Your task to perform on an android device: turn off notifications settings in the gmail app Image 0: 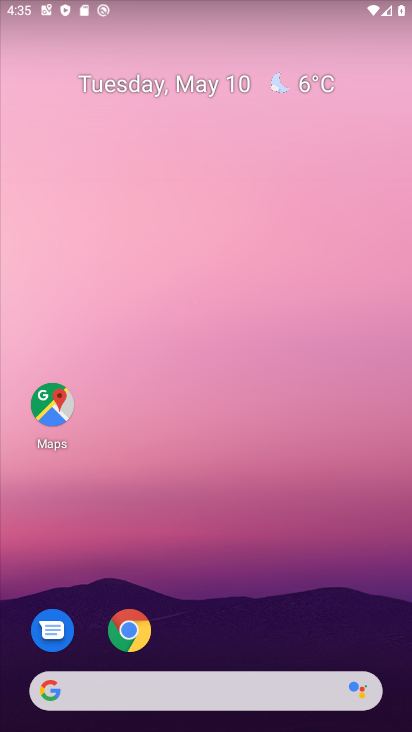
Step 0: drag from (288, 630) to (231, 114)
Your task to perform on an android device: turn off notifications settings in the gmail app Image 1: 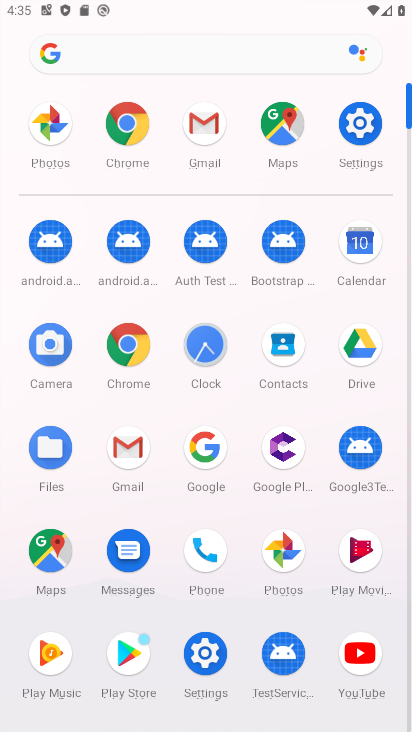
Step 1: click (211, 121)
Your task to perform on an android device: turn off notifications settings in the gmail app Image 2: 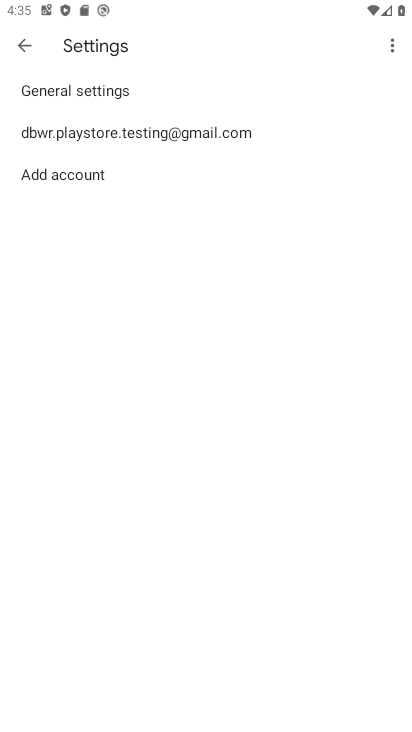
Step 2: click (196, 141)
Your task to perform on an android device: turn off notifications settings in the gmail app Image 3: 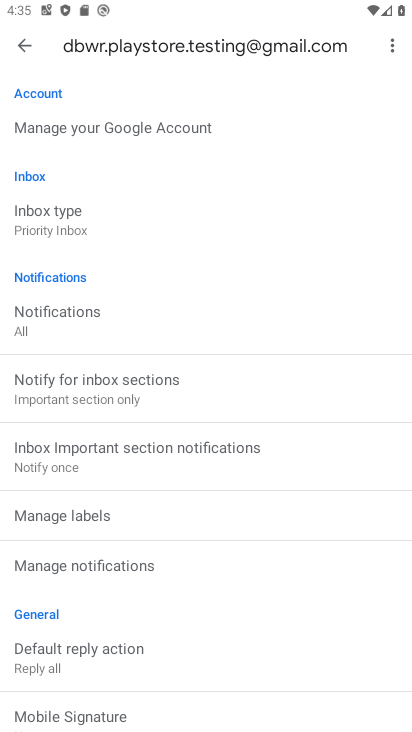
Step 3: drag from (237, 605) to (254, 315)
Your task to perform on an android device: turn off notifications settings in the gmail app Image 4: 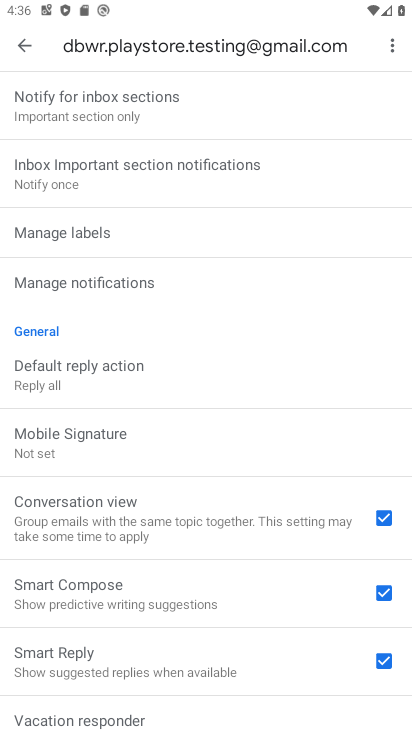
Step 4: drag from (146, 212) to (153, 501)
Your task to perform on an android device: turn off notifications settings in the gmail app Image 5: 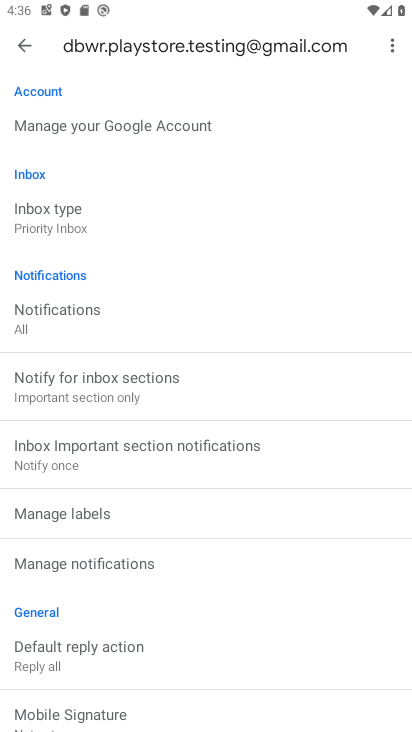
Step 5: click (107, 565)
Your task to perform on an android device: turn off notifications settings in the gmail app Image 6: 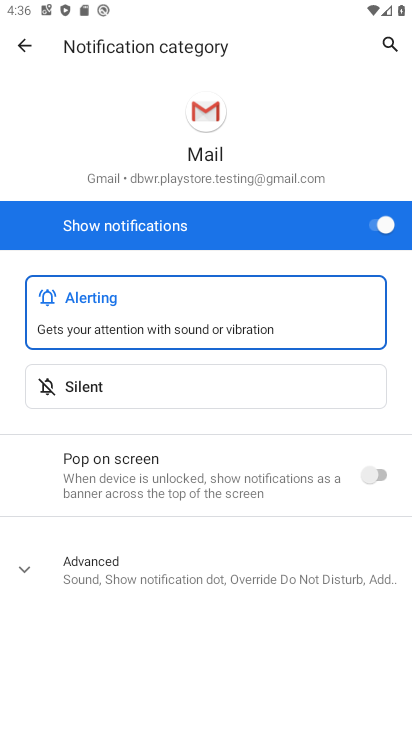
Step 6: click (383, 214)
Your task to perform on an android device: turn off notifications settings in the gmail app Image 7: 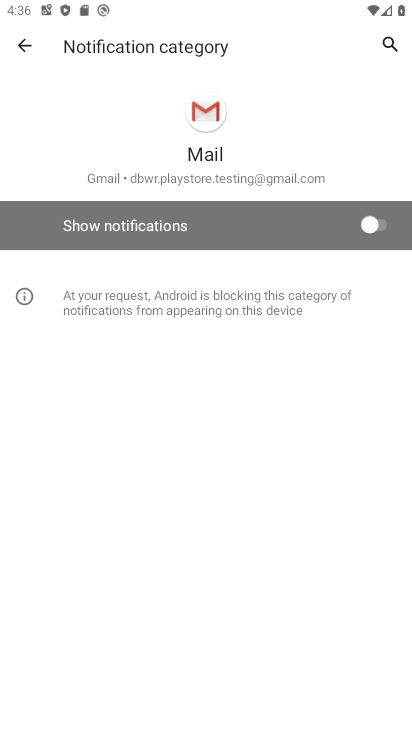
Step 7: task complete